Your task to perform on an android device: Open calendar and show me the third week of next month Image 0: 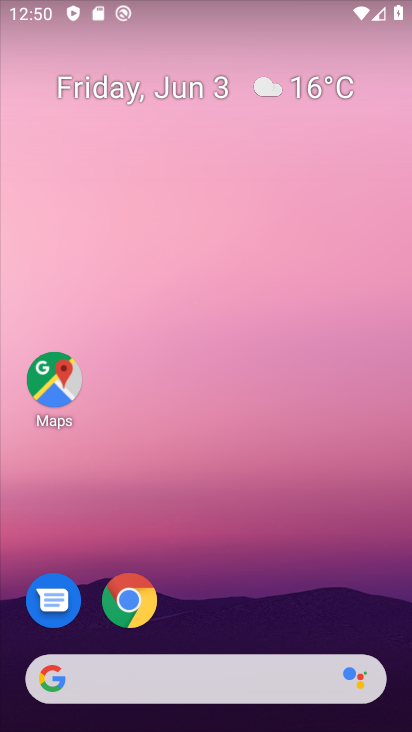
Step 0: drag from (254, 567) to (224, 23)
Your task to perform on an android device: Open calendar and show me the third week of next month Image 1: 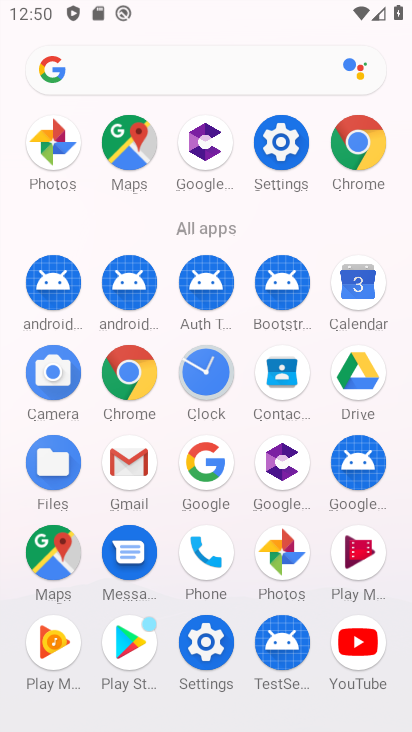
Step 1: drag from (8, 265) to (1, 149)
Your task to perform on an android device: Open calendar and show me the third week of next month Image 2: 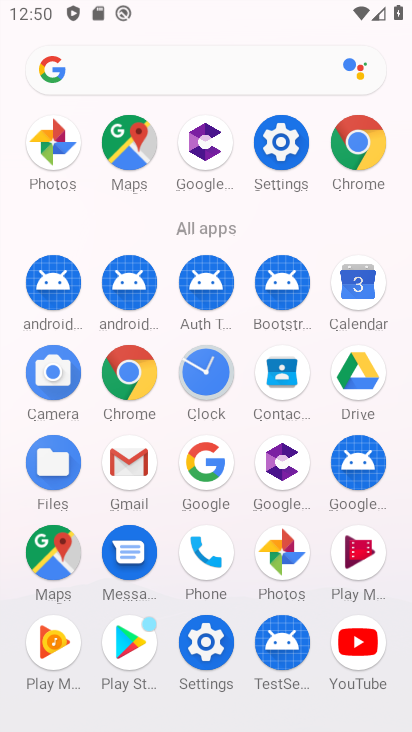
Step 2: click (357, 277)
Your task to perform on an android device: Open calendar and show me the third week of next month Image 3: 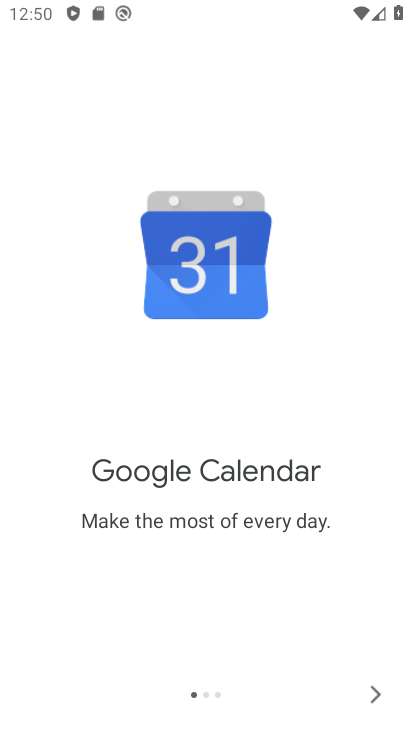
Step 3: click (364, 701)
Your task to perform on an android device: Open calendar and show me the third week of next month Image 4: 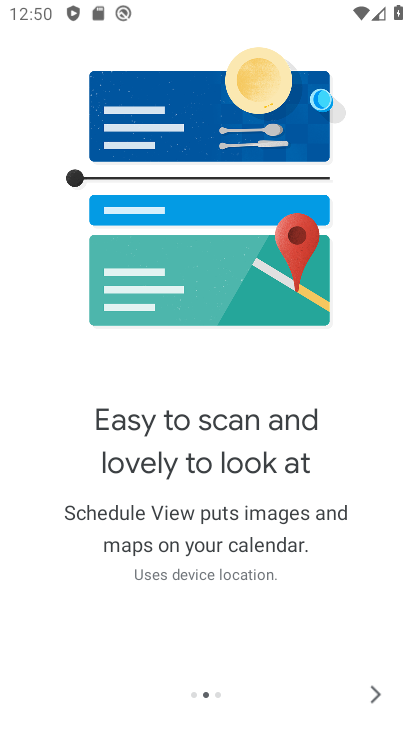
Step 4: click (368, 691)
Your task to perform on an android device: Open calendar and show me the third week of next month Image 5: 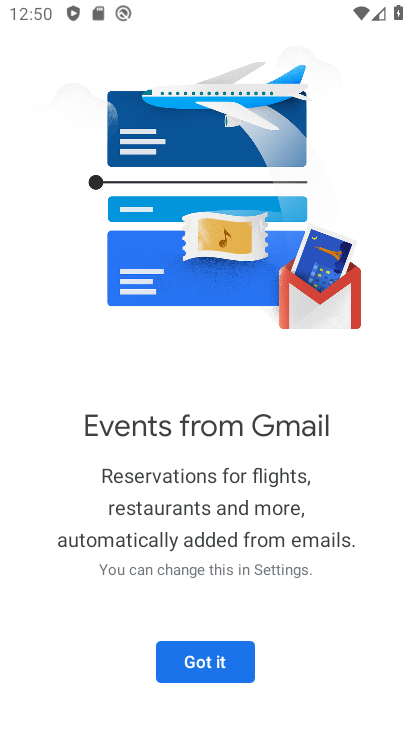
Step 5: click (369, 691)
Your task to perform on an android device: Open calendar and show me the third week of next month Image 6: 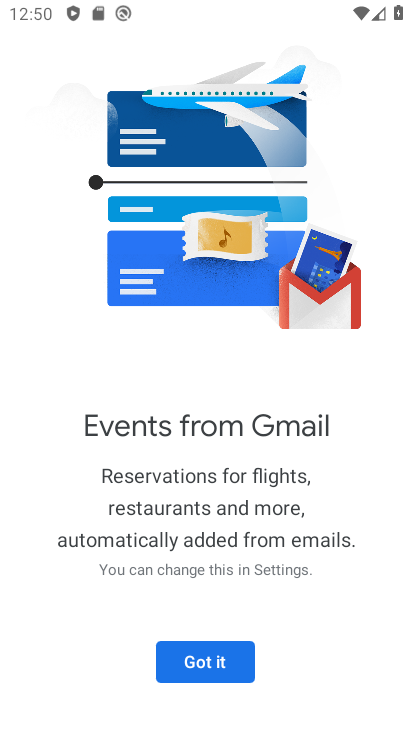
Step 6: click (243, 666)
Your task to perform on an android device: Open calendar and show me the third week of next month Image 7: 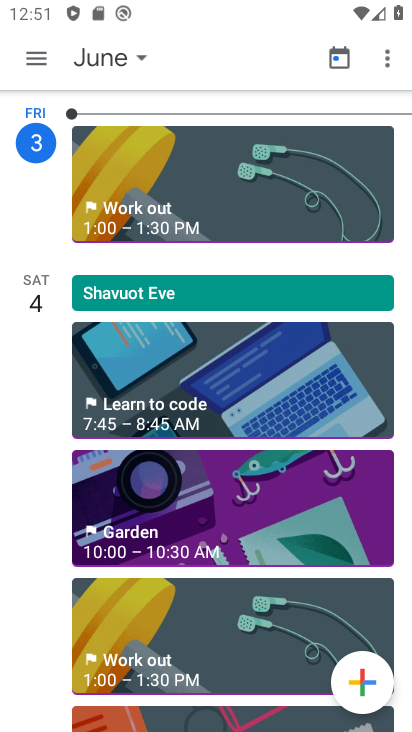
Step 7: click (110, 57)
Your task to perform on an android device: Open calendar and show me the third week of next month Image 8: 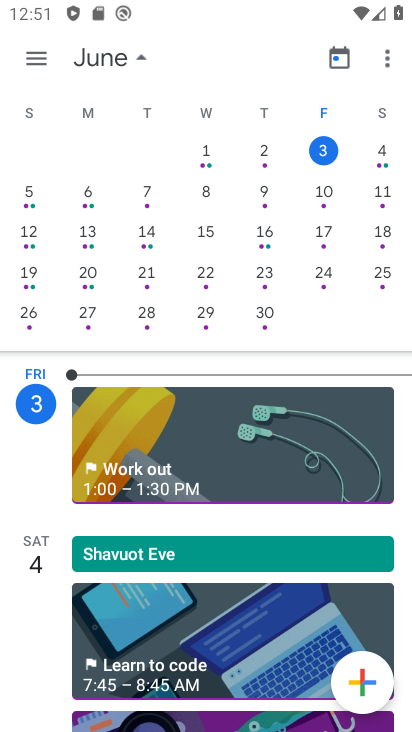
Step 8: drag from (383, 233) to (4, 194)
Your task to perform on an android device: Open calendar and show me the third week of next month Image 9: 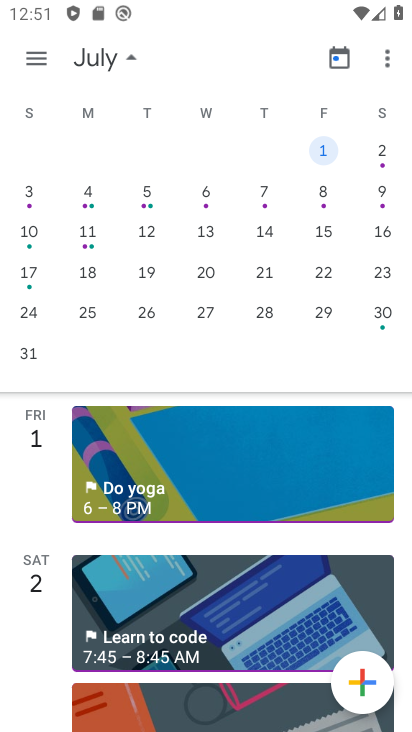
Step 9: click (28, 268)
Your task to perform on an android device: Open calendar and show me the third week of next month Image 10: 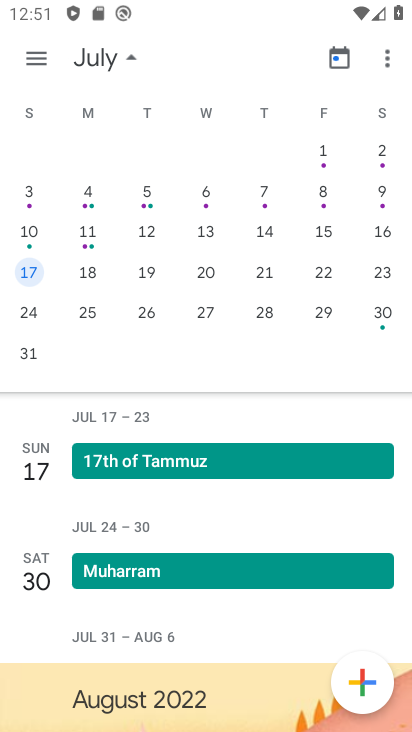
Step 10: click (39, 56)
Your task to perform on an android device: Open calendar and show me the third week of next month Image 11: 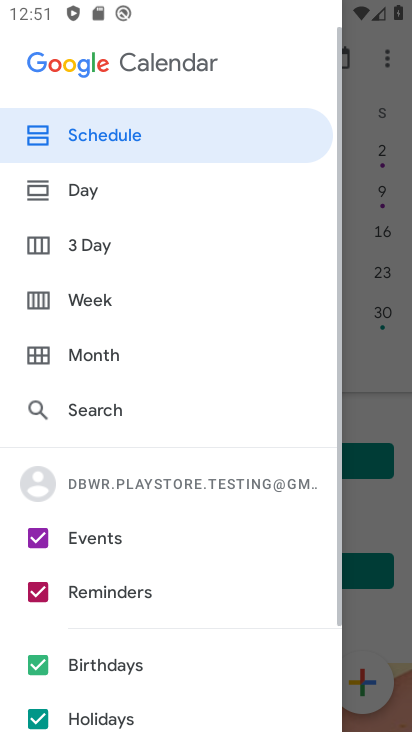
Step 11: click (107, 297)
Your task to perform on an android device: Open calendar and show me the third week of next month Image 12: 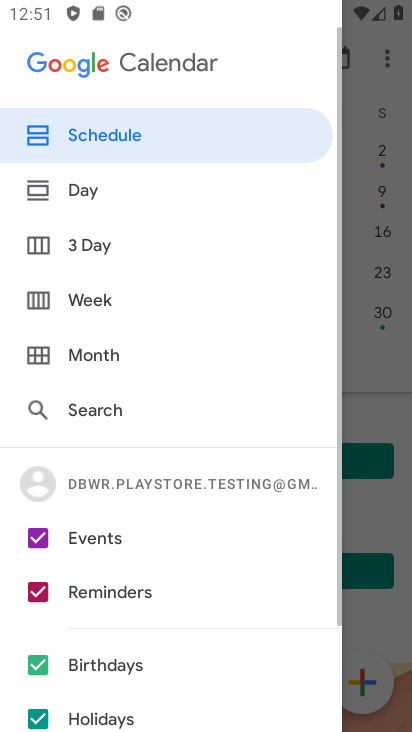
Step 12: click (103, 299)
Your task to perform on an android device: Open calendar and show me the third week of next month Image 13: 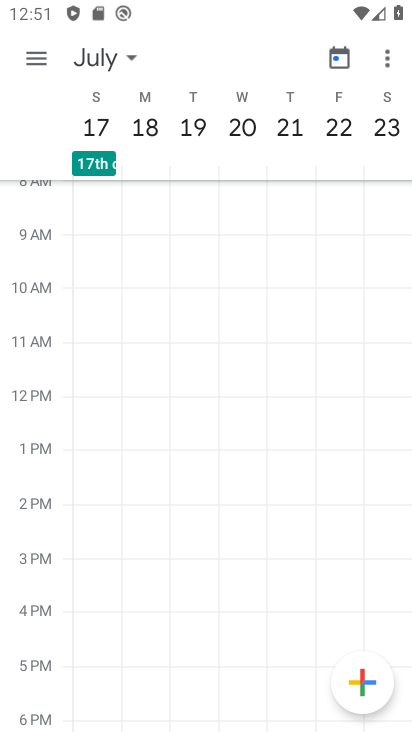
Step 13: task complete